Your task to perform on an android device: Search for 'The Girl on the Train' on Goodreads. Image 0: 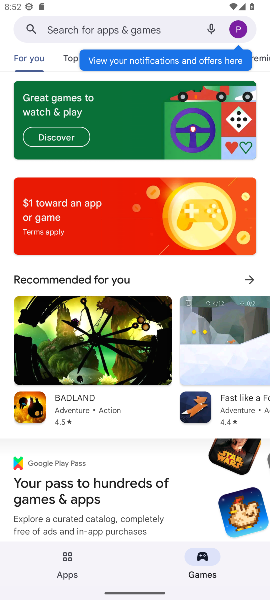
Step 0: press home button
Your task to perform on an android device: Search for 'The Girl on the Train' on Goodreads. Image 1: 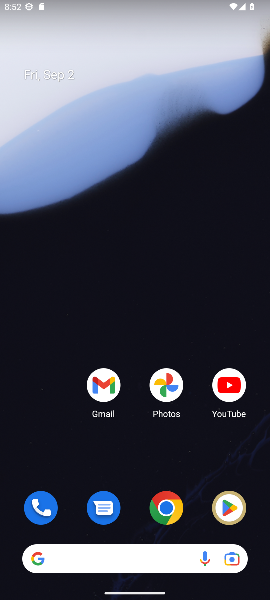
Step 1: drag from (194, 473) to (238, 115)
Your task to perform on an android device: Search for 'The Girl on the Train' on Goodreads. Image 2: 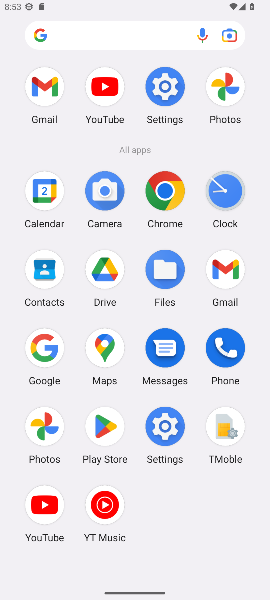
Step 2: click (171, 205)
Your task to perform on an android device: Search for 'The Girl on the Train' on Goodreads. Image 3: 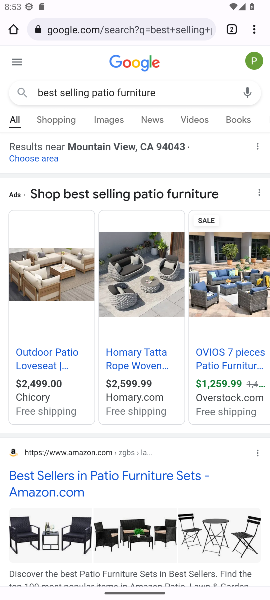
Step 3: click (140, 33)
Your task to perform on an android device: Search for 'The Girl on the Train' on Goodreads. Image 4: 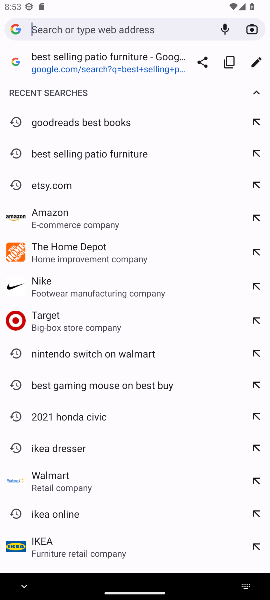
Step 4: type "Goodreads"
Your task to perform on an android device: Search for 'The Girl on the Train' on Goodreads. Image 5: 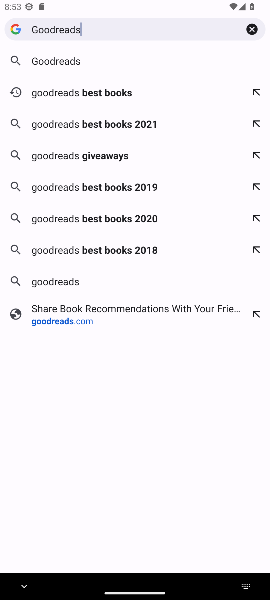
Step 5: click (52, 61)
Your task to perform on an android device: Search for 'The Girl on the Train' on Goodreads. Image 6: 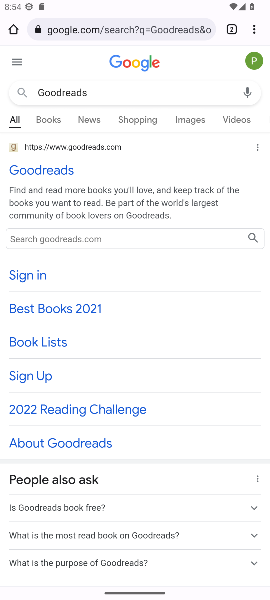
Step 6: click (49, 169)
Your task to perform on an android device: Search for 'The Girl on the Train' on Goodreads. Image 7: 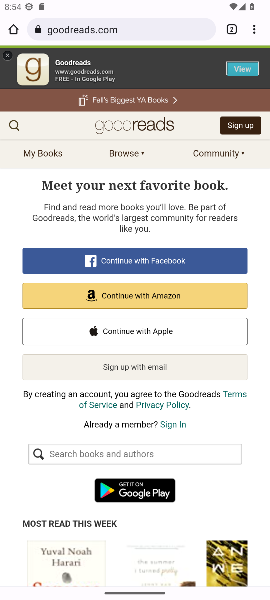
Step 7: click (8, 124)
Your task to perform on an android device: Search for 'The Girl on the Train' on Goodreads. Image 8: 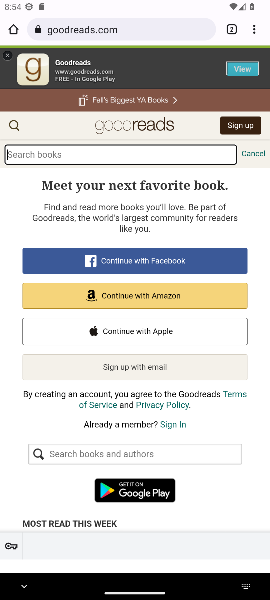
Step 8: type "The girl on the train"
Your task to perform on an android device: Search for 'The Girl on the Train' on Goodreads. Image 9: 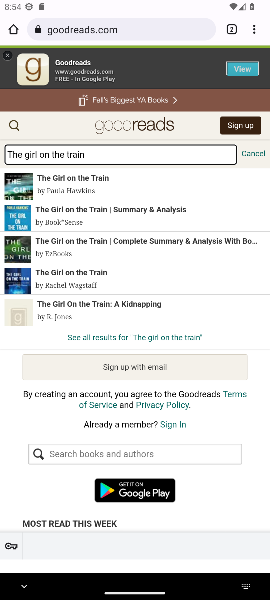
Step 9: click (60, 180)
Your task to perform on an android device: Search for 'The Girl on the Train' on Goodreads. Image 10: 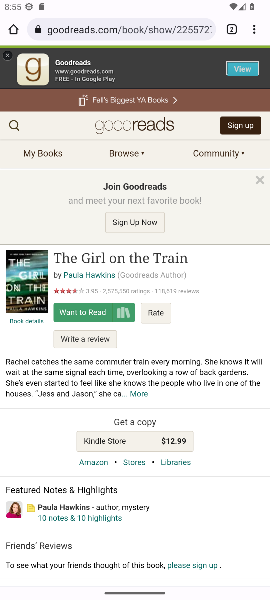
Step 10: task complete